Your task to perform on an android device: show emergency info Image 0: 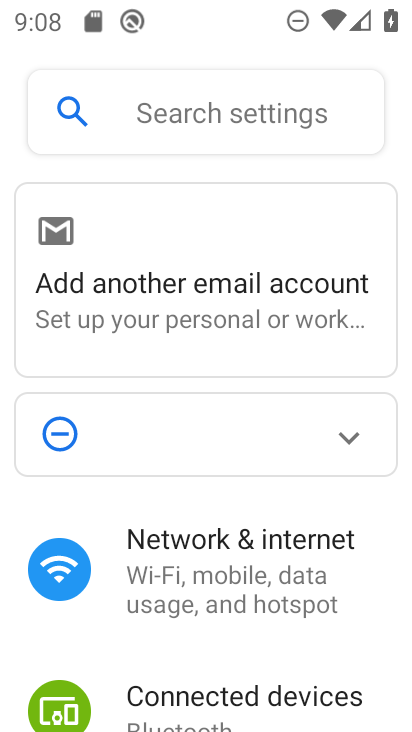
Step 0: drag from (94, 715) to (121, 274)
Your task to perform on an android device: show emergency info Image 1: 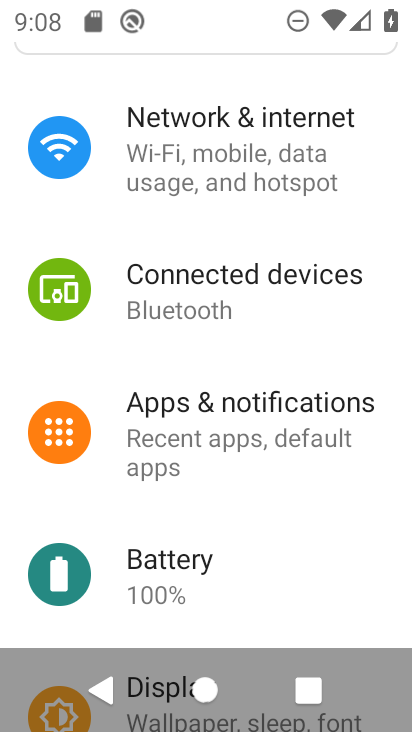
Step 1: drag from (109, 636) to (122, 584)
Your task to perform on an android device: show emergency info Image 2: 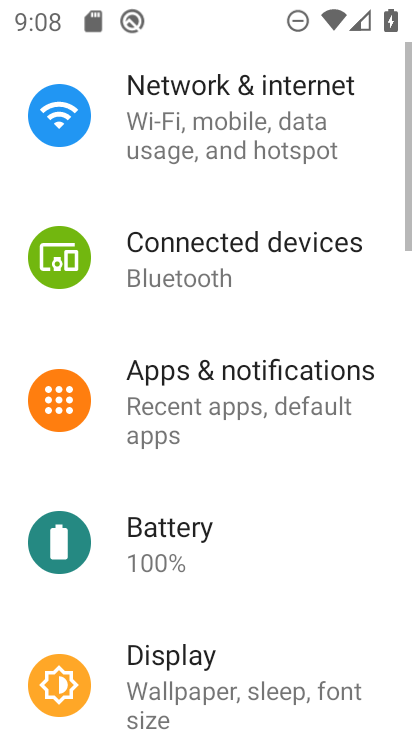
Step 2: drag from (126, 420) to (128, 214)
Your task to perform on an android device: show emergency info Image 3: 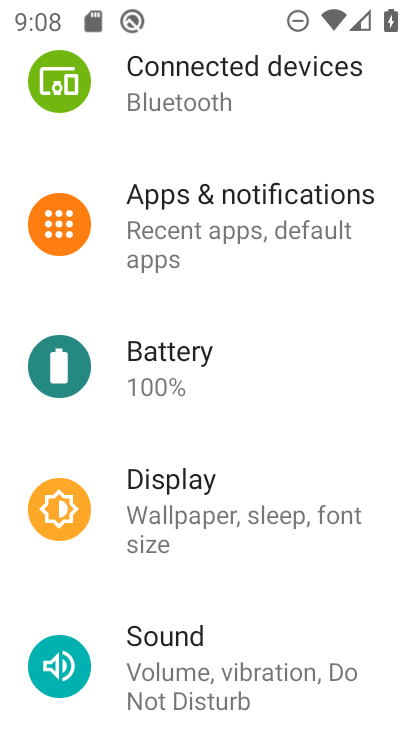
Step 3: drag from (97, 694) to (108, 216)
Your task to perform on an android device: show emergency info Image 4: 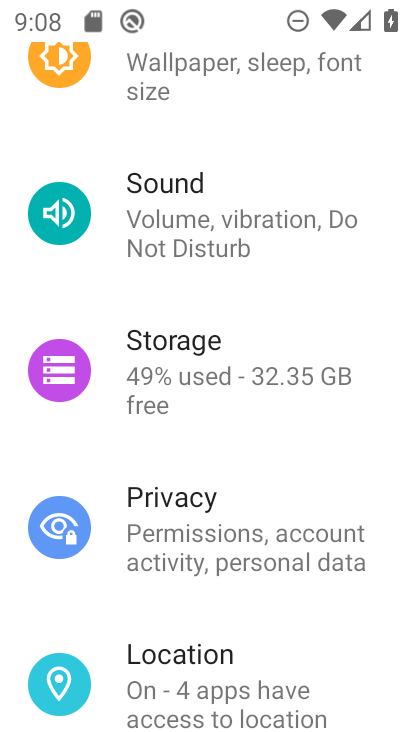
Step 4: drag from (94, 698) to (105, 555)
Your task to perform on an android device: show emergency info Image 5: 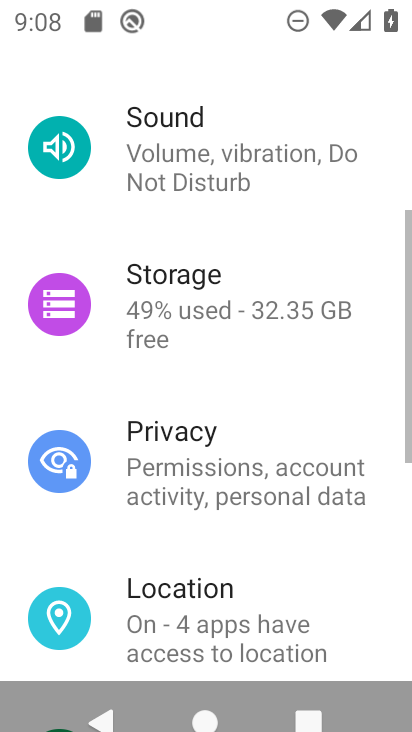
Step 5: drag from (104, 496) to (105, 212)
Your task to perform on an android device: show emergency info Image 6: 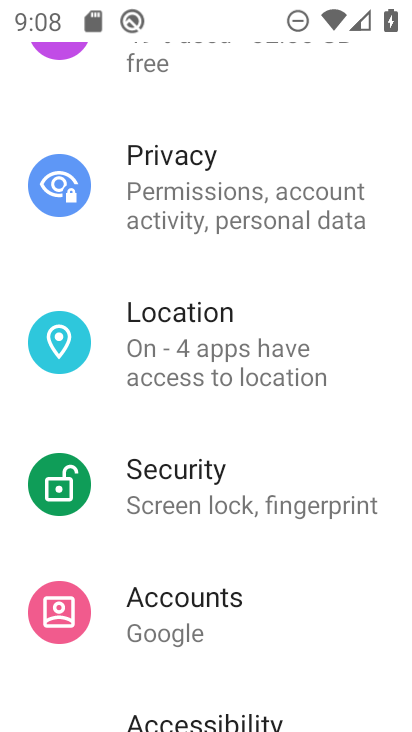
Step 6: drag from (104, 659) to (109, 109)
Your task to perform on an android device: show emergency info Image 7: 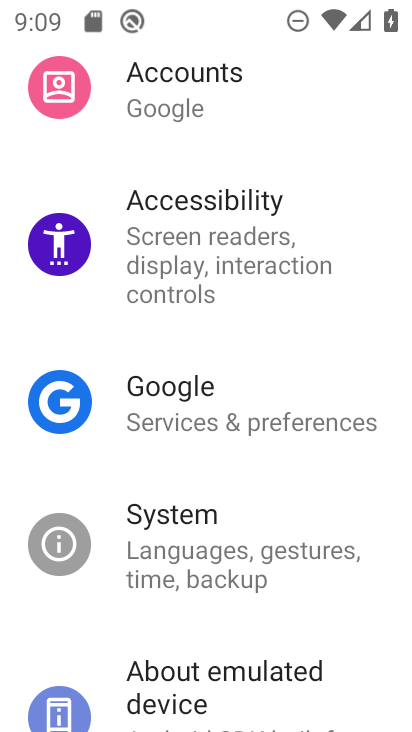
Step 7: drag from (101, 664) to (99, 149)
Your task to perform on an android device: show emergency info Image 8: 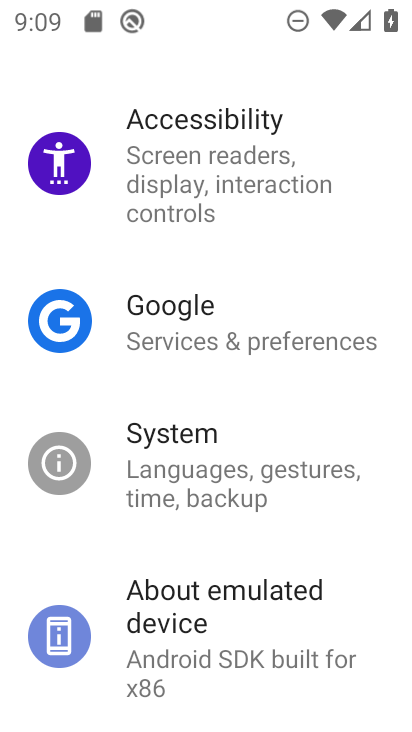
Step 8: click (166, 612)
Your task to perform on an android device: show emergency info Image 9: 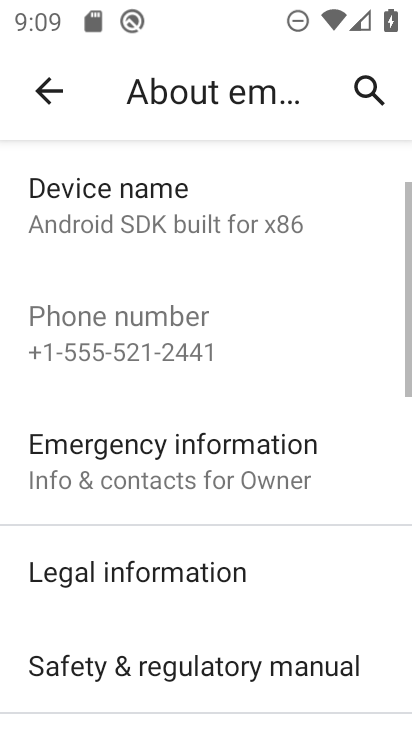
Step 9: click (139, 464)
Your task to perform on an android device: show emergency info Image 10: 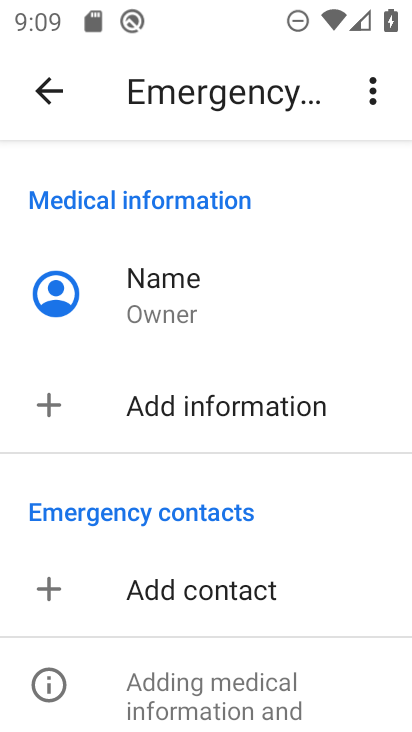
Step 10: task complete